Your task to perform on an android device: View the shopping cart on bestbuy.com. Image 0: 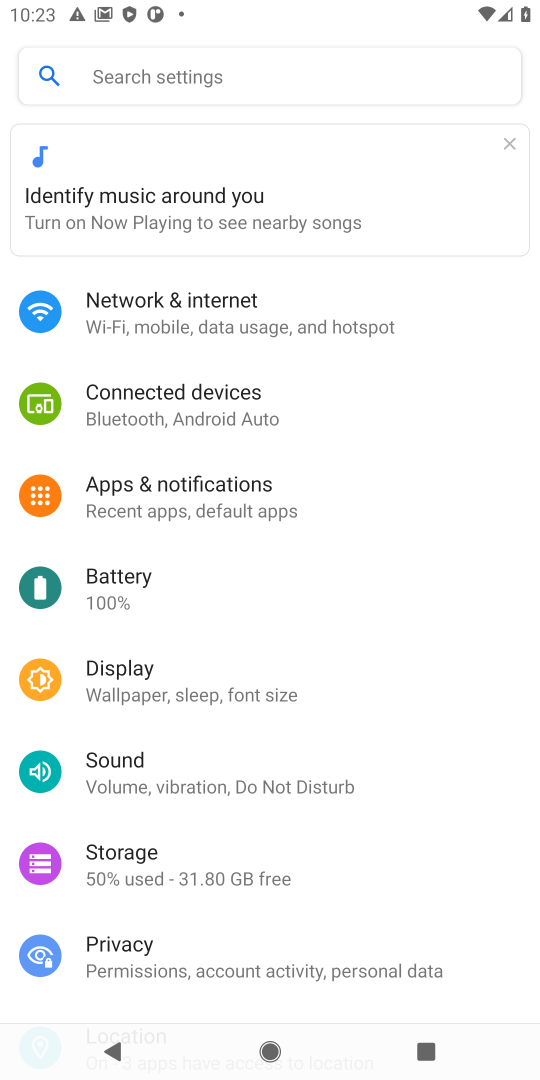
Step 0: press home button
Your task to perform on an android device: View the shopping cart on bestbuy.com. Image 1: 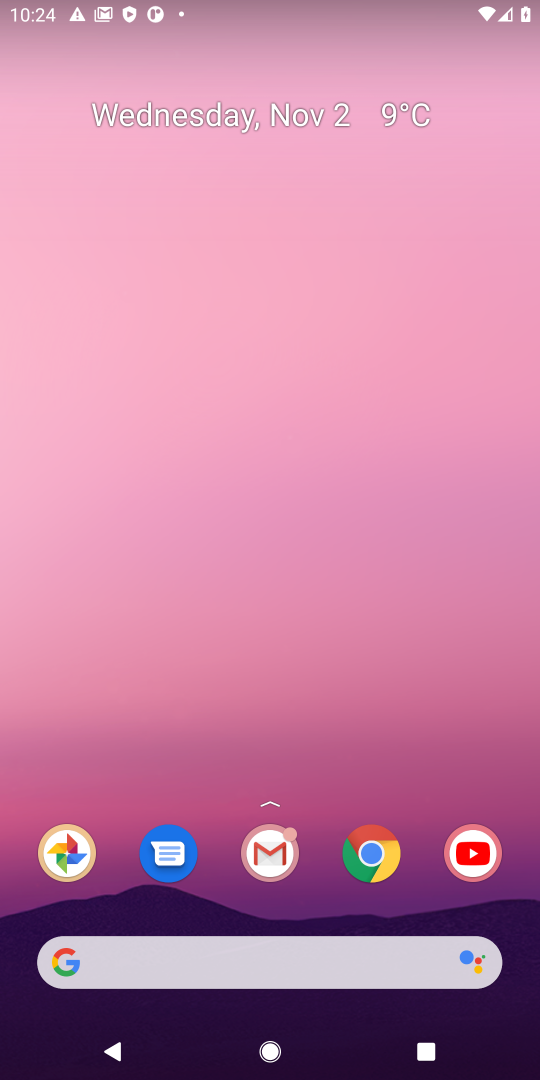
Step 1: click (375, 863)
Your task to perform on an android device: View the shopping cart on bestbuy.com. Image 2: 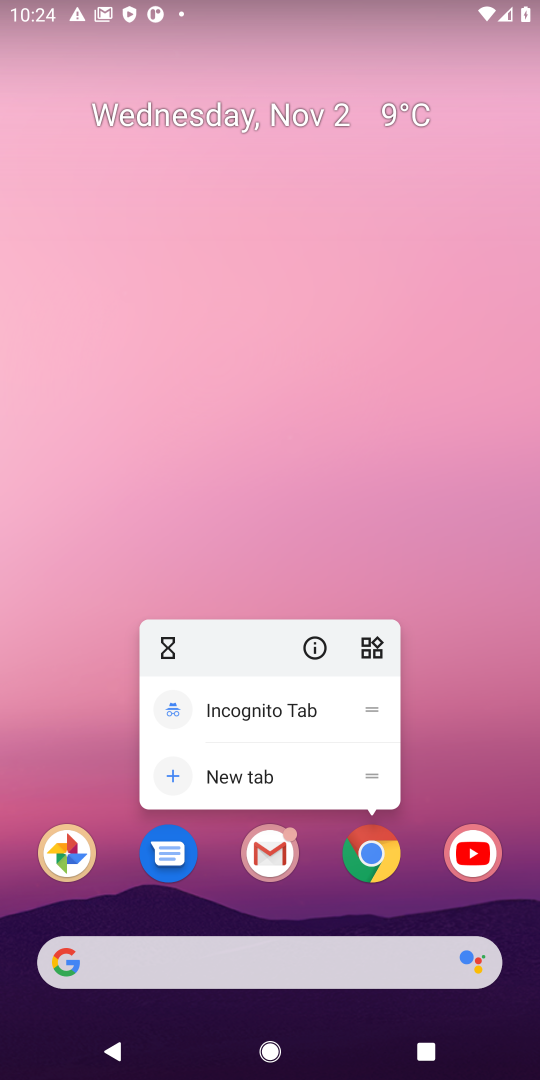
Step 2: click (375, 863)
Your task to perform on an android device: View the shopping cart on bestbuy.com. Image 3: 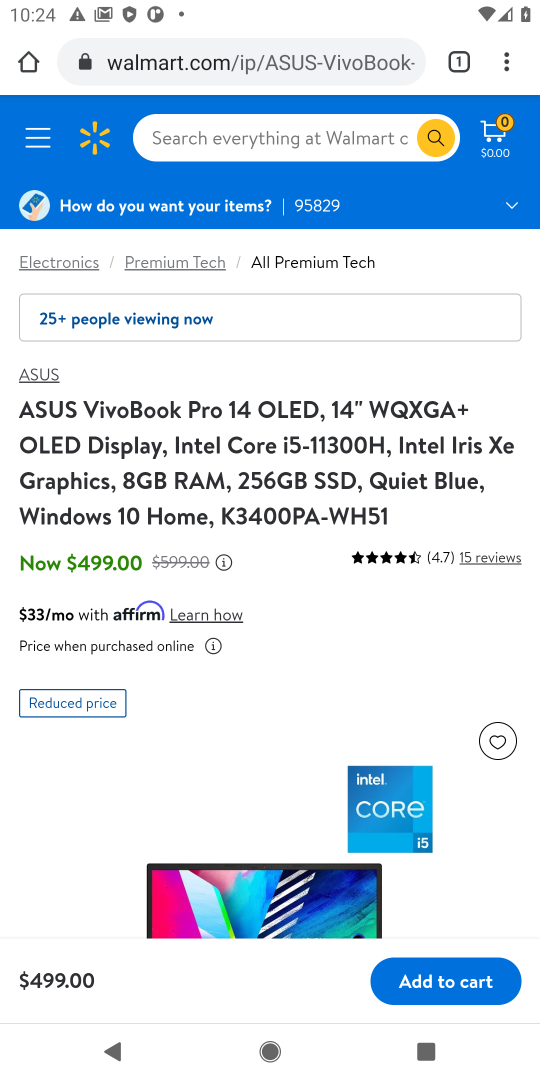
Step 3: click (270, 76)
Your task to perform on an android device: View the shopping cart on bestbuy.com. Image 4: 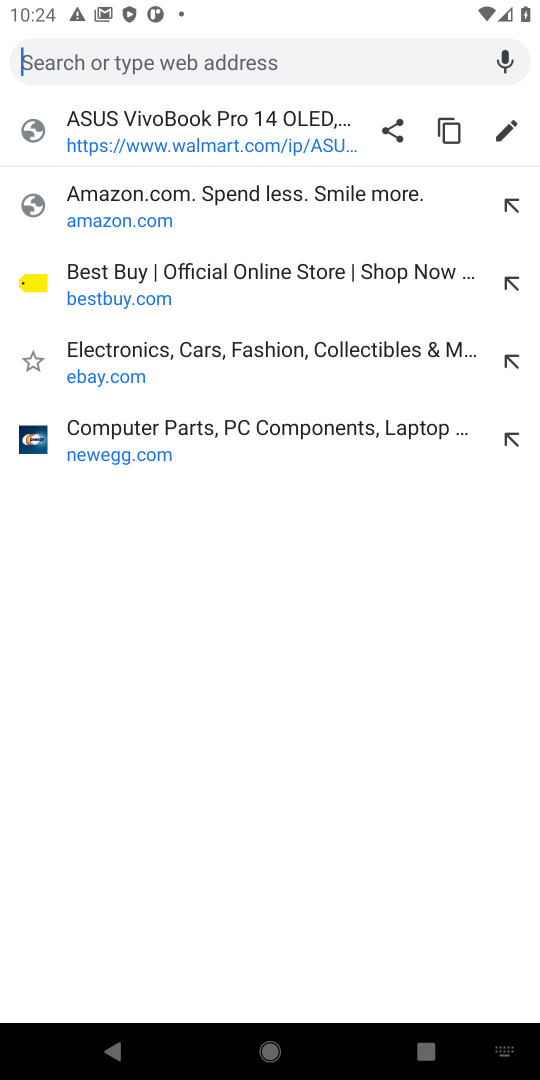
Step 4: click (133, 297)
Your task to perform on an android device: View the shopping cart on bestbuy.com. Image 5: 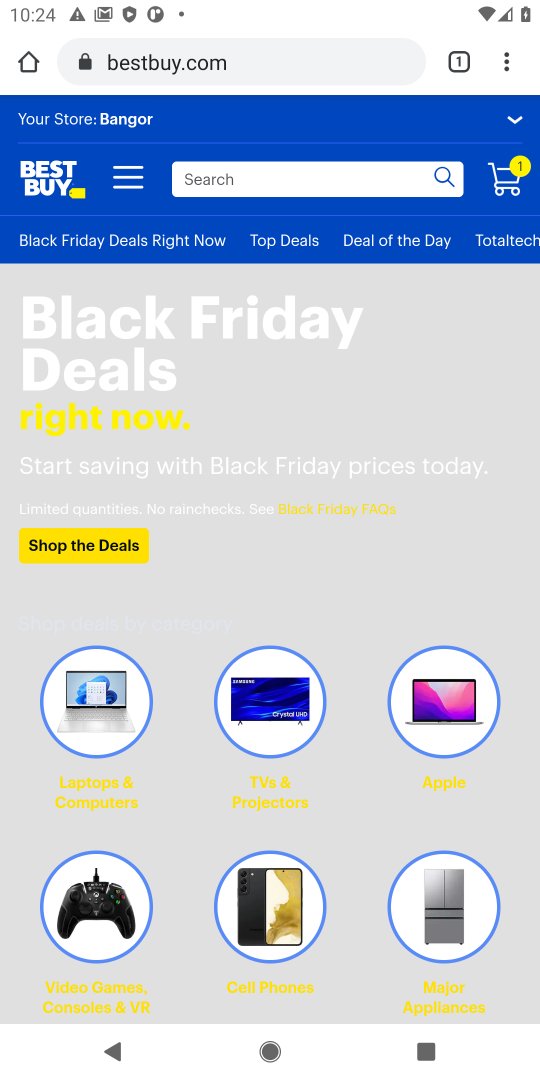
Step 5: click (516, 178)
Your task to perform on an android device: View the shopping cart on bestbuy.com. Image 6: 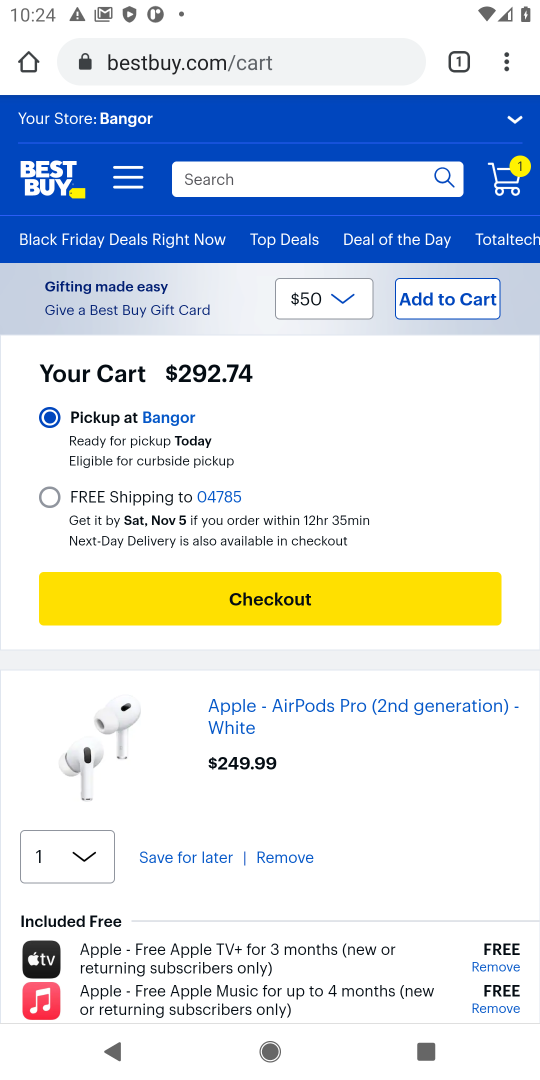
Step 6: click (499, 178)
Your task to perform on an android device: View the shopping cart on bestbuy.com. Image 7: 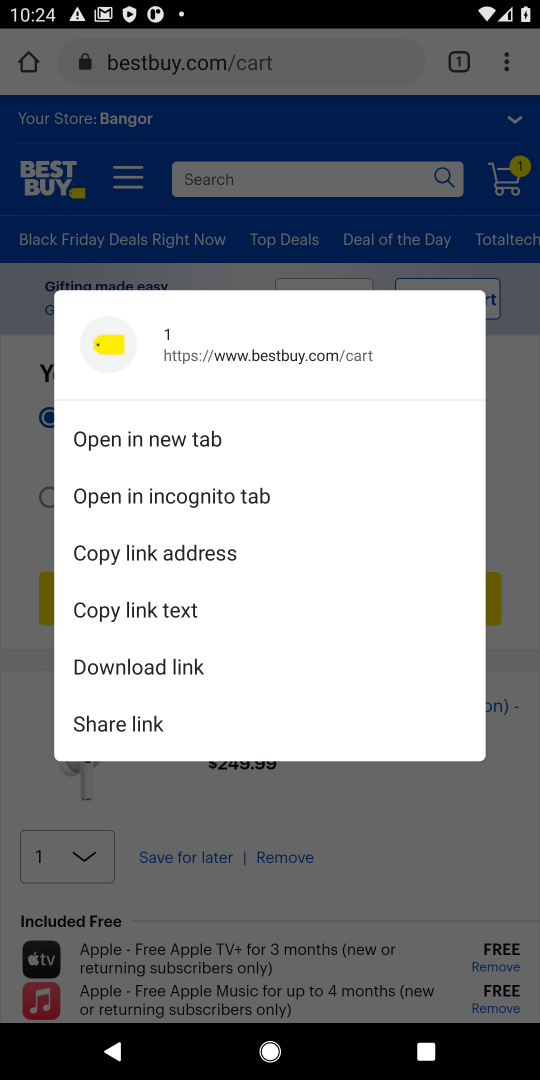
Step 7: click (510, 170)
Your task to perform on an android device: View the shopping cart on bestbuy.com. Image 8: 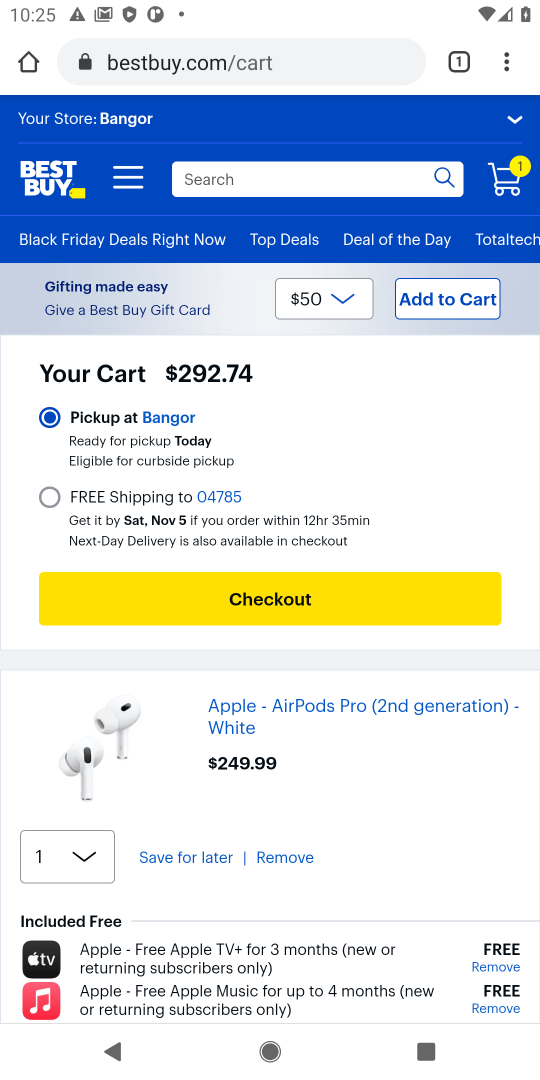
Step 8: click (507, 174)
Your task to perform on an android device: View the shopping cart on bestbuy.com. Image 9: 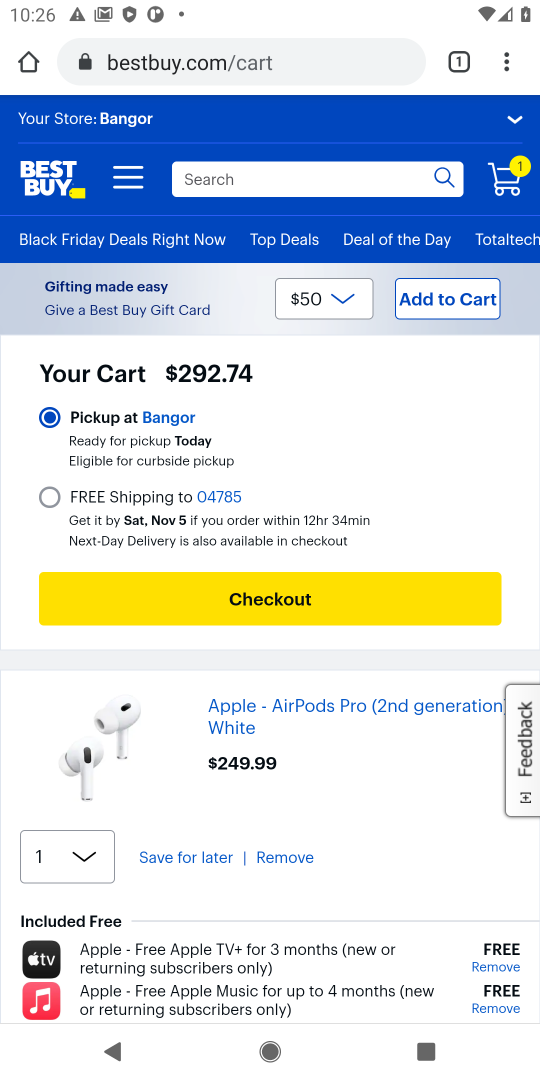
Step 9: task complete